Your task to perform on an android device: turn on data saver in the chrome app Image 0: 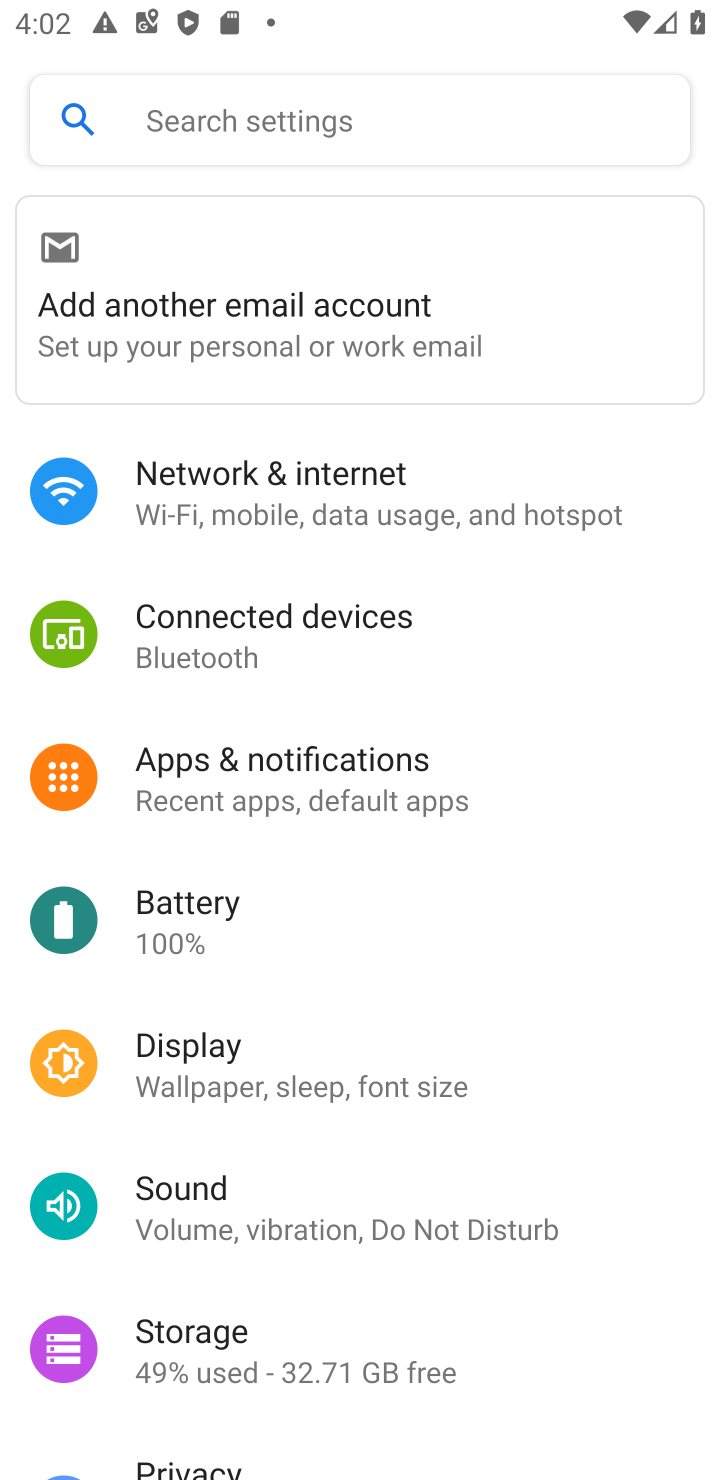
Step 0: press home button
Your task to perform on an android device: turn on data saver in the chrome app Image 1: 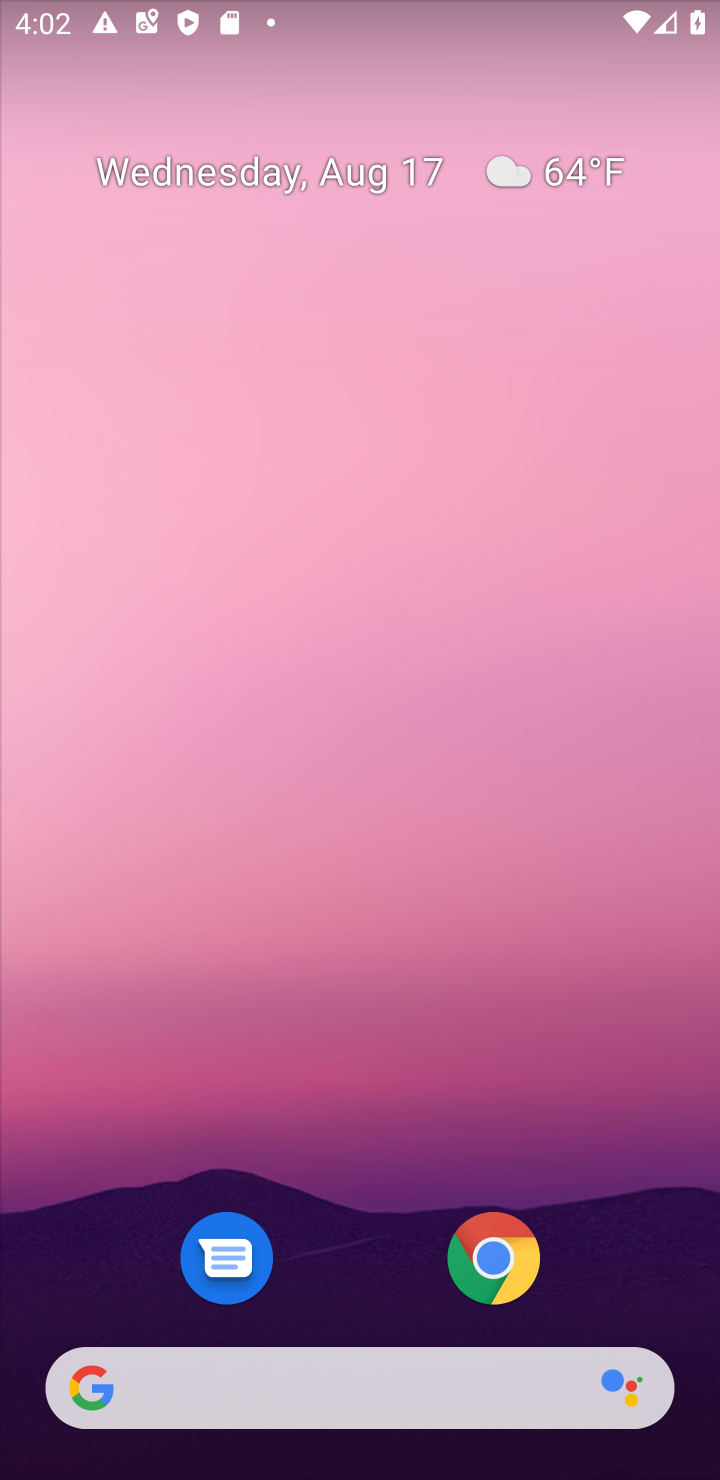
Step 1: click (503, 1253)
Your task to perform on an android device: turn on data saver in the chrome app Image 2: 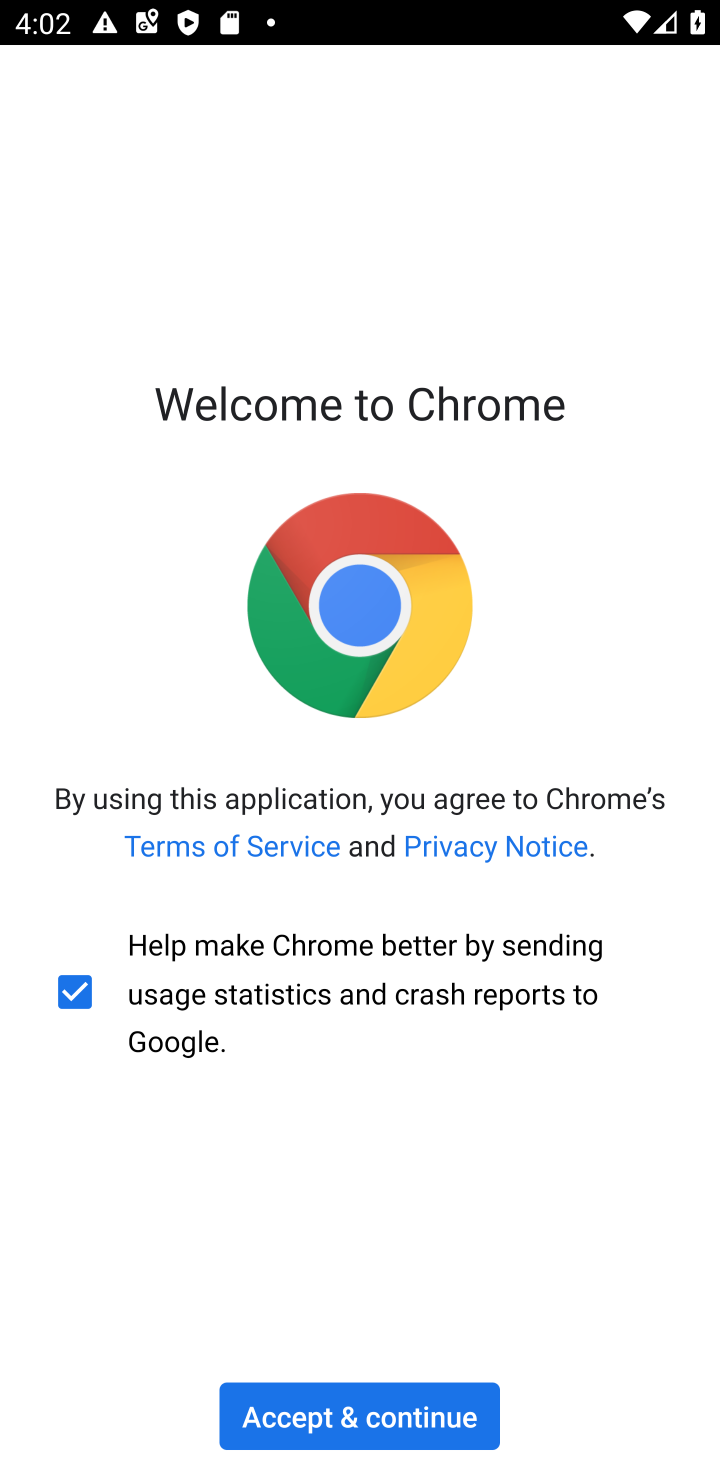
Step 2: click (397, 1411)
Your task to perform on an android device: turn on data saver in the chrome app Image 3: 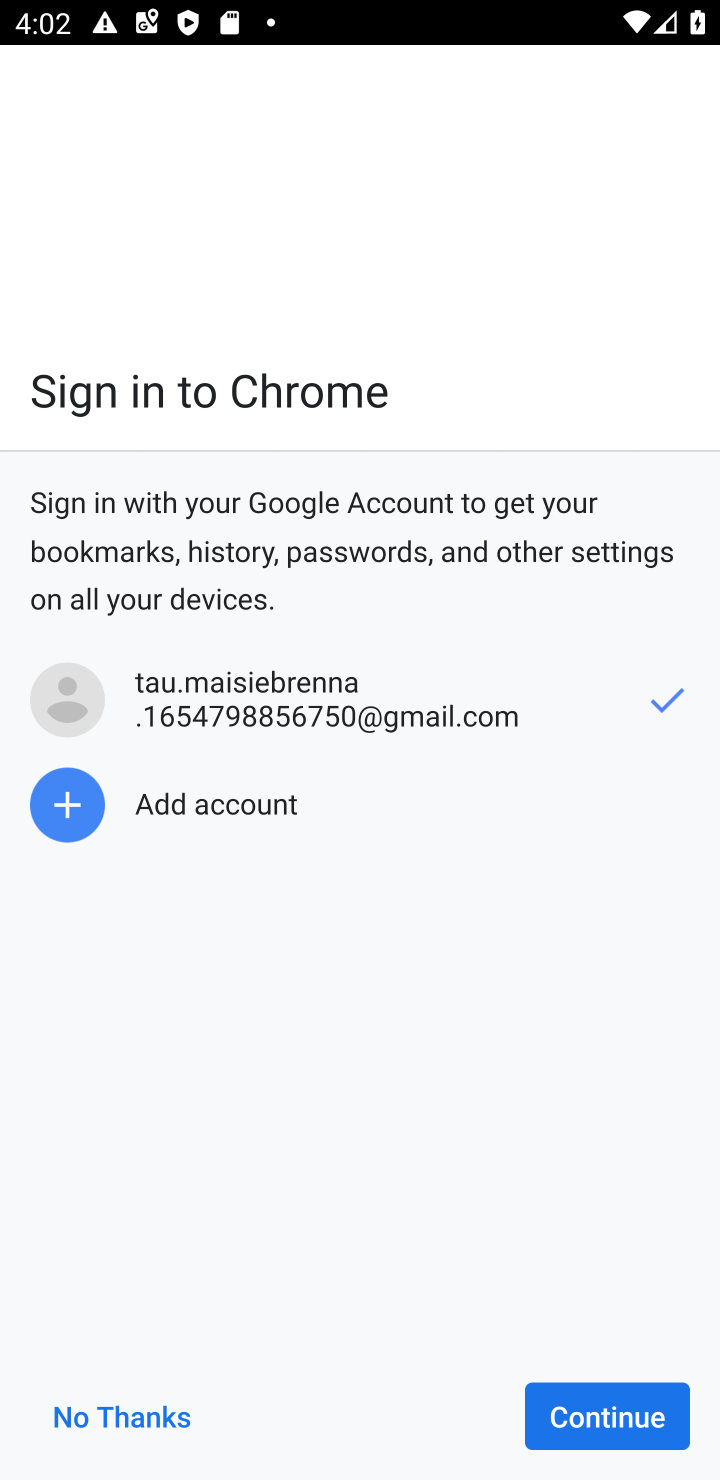
Step 3: click (618, 1428)
Your task to perform on an android device: turn on data saver in the chrome app Image 4: 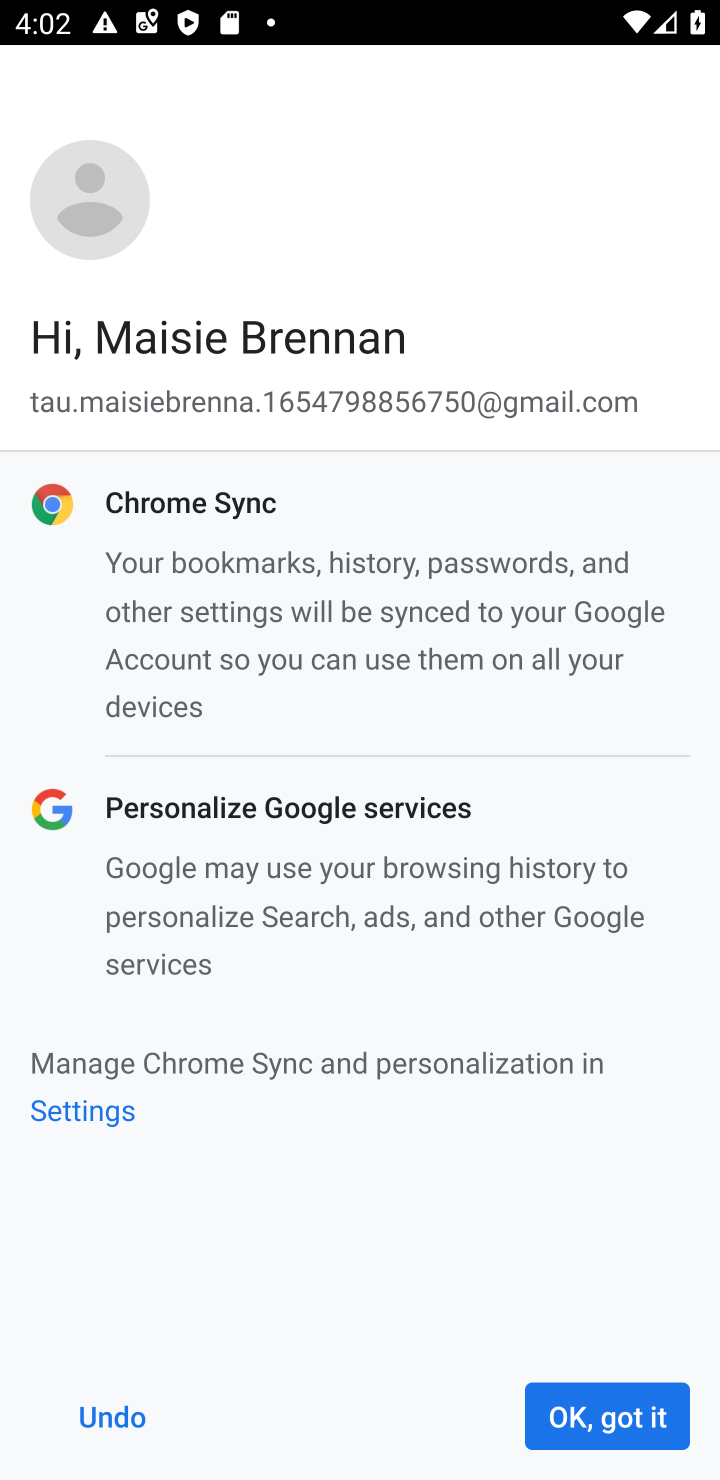
Step 4: click (618, 1428)
Your task to perform on an android device: turn on data saver in the chrome app Image 5: 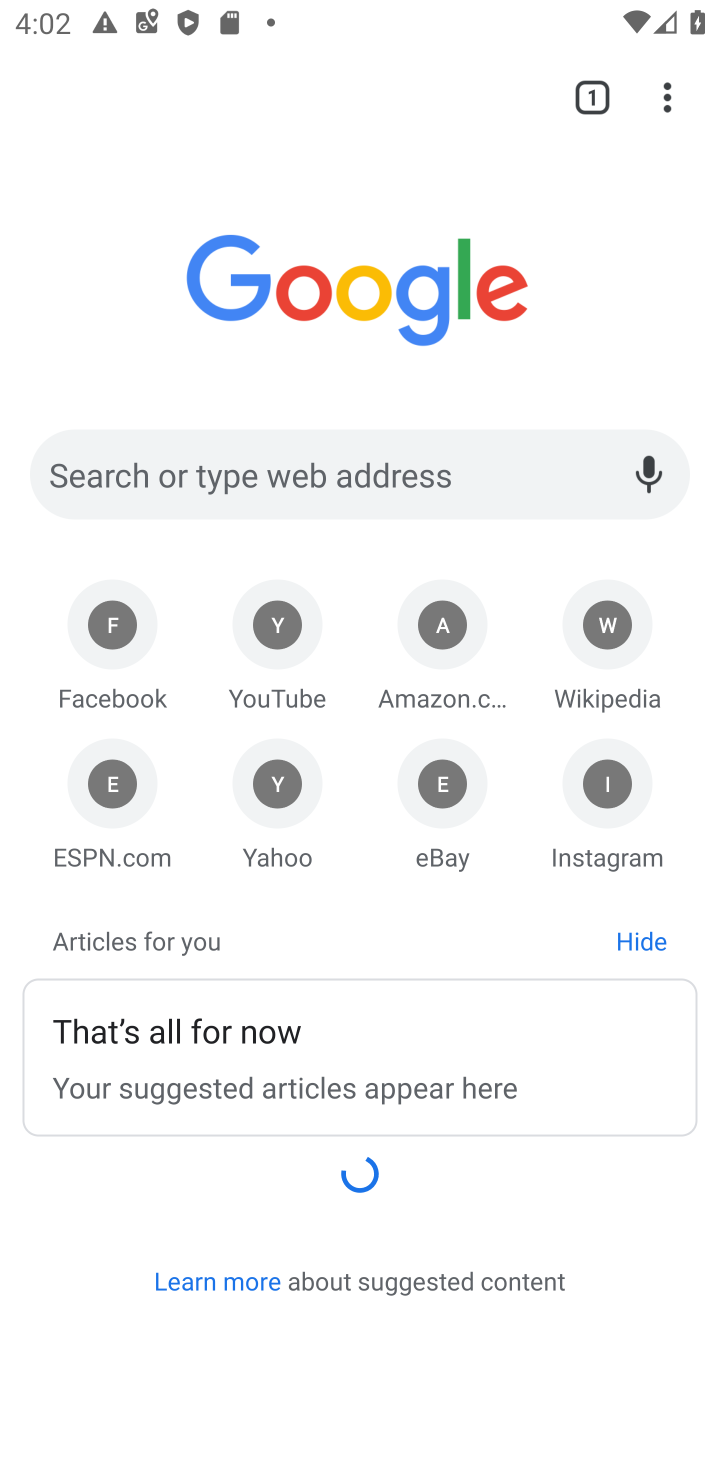
Step 5: click (676, 80)
Your task to perform on an android device: turn on data saver in the chrome app Image 6: 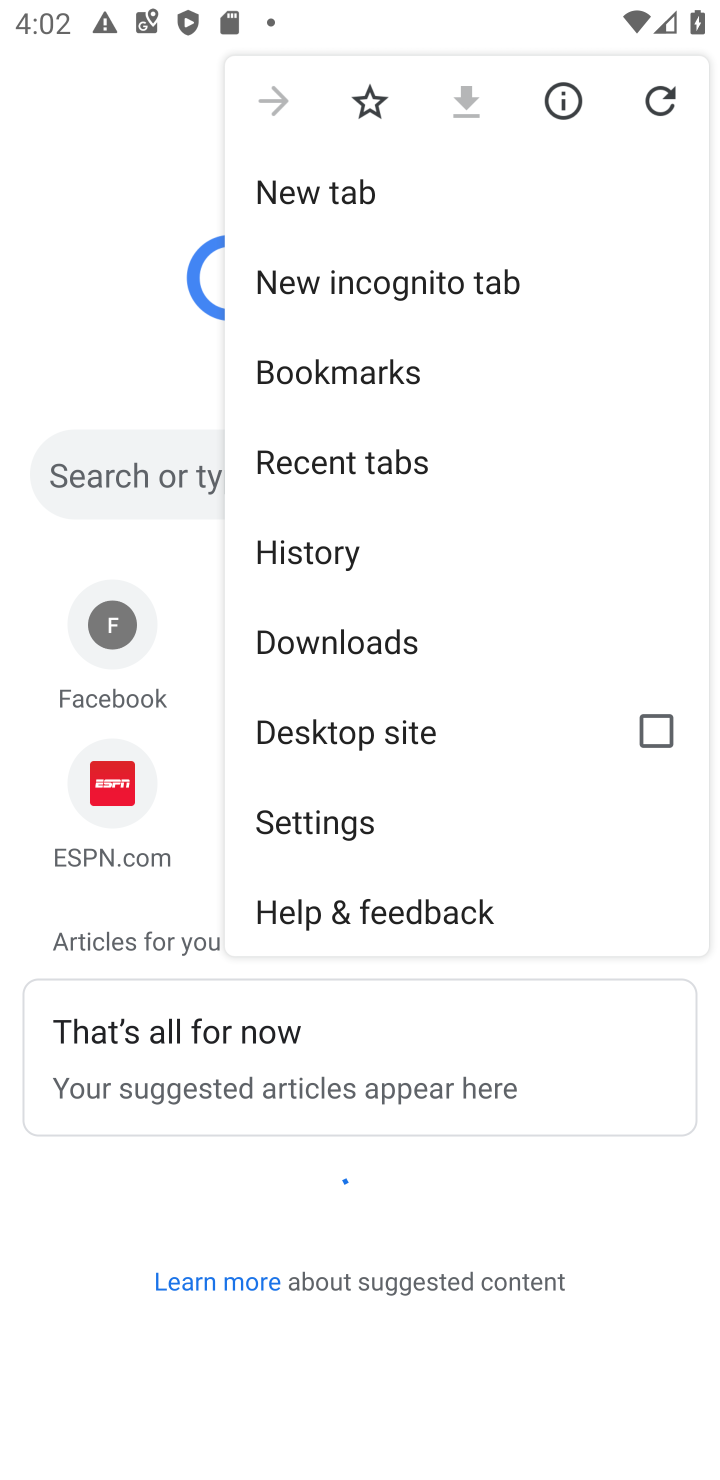
Step 6: click (311, 817)
Your task to perform on an android device: turn on data saver in the chrome app Image 7: 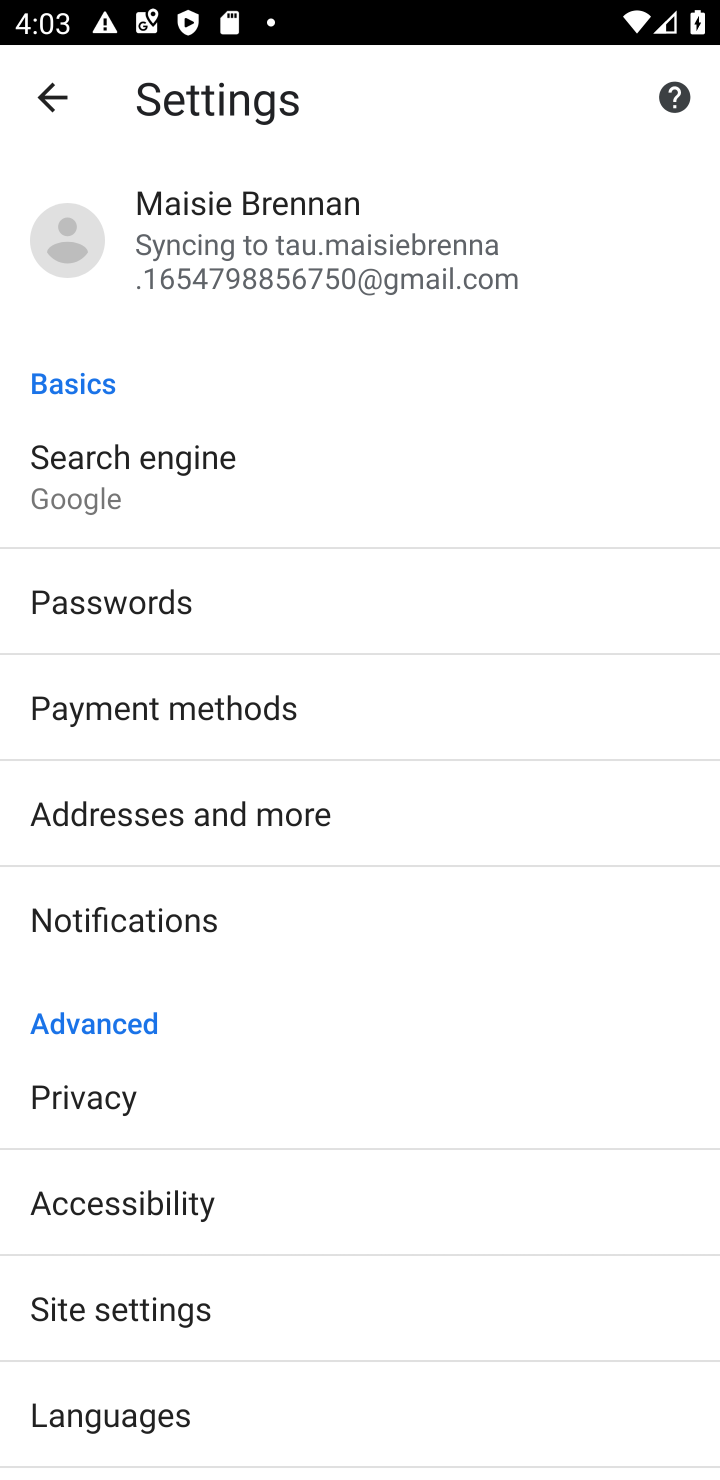
Step 7: drag from (336, 1359) to (364, 725)
Your task to perform on an android device: turn on data saver in the chrome app Image 8: 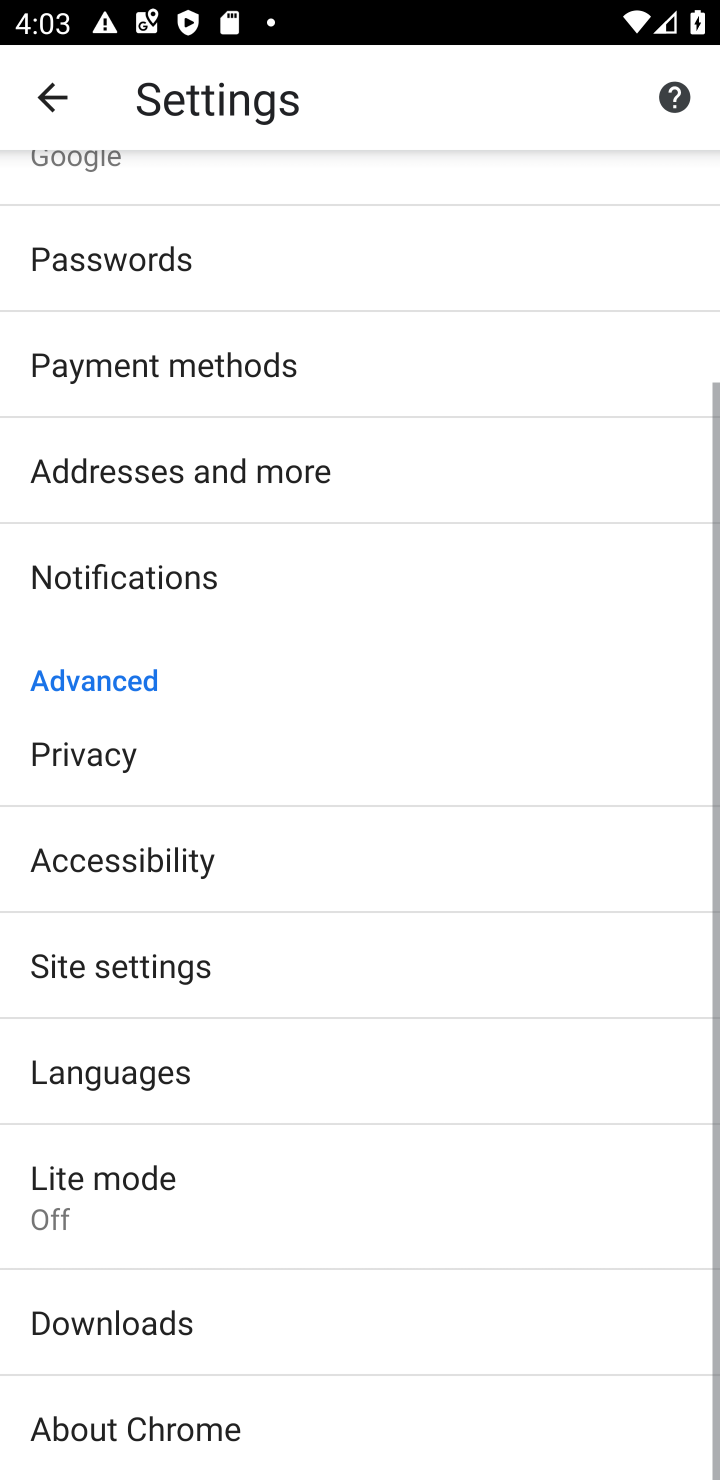
Step 8: click (207, 1206)
Your task to perform on an android device: turn on data saver in the chrome app Image 9: 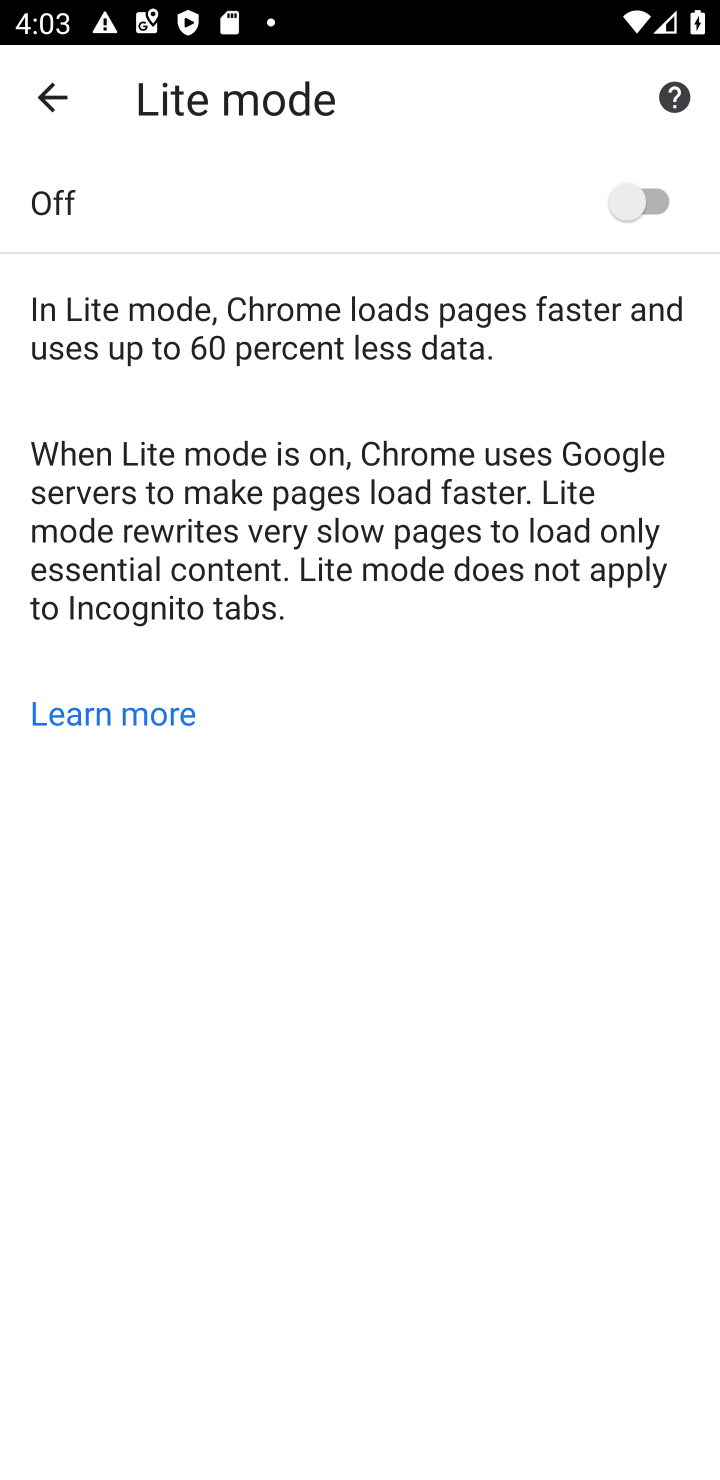
Step 9: click (633, 179)
Your task to perform on an android device: turn on data saver in the chrome app Image 10: 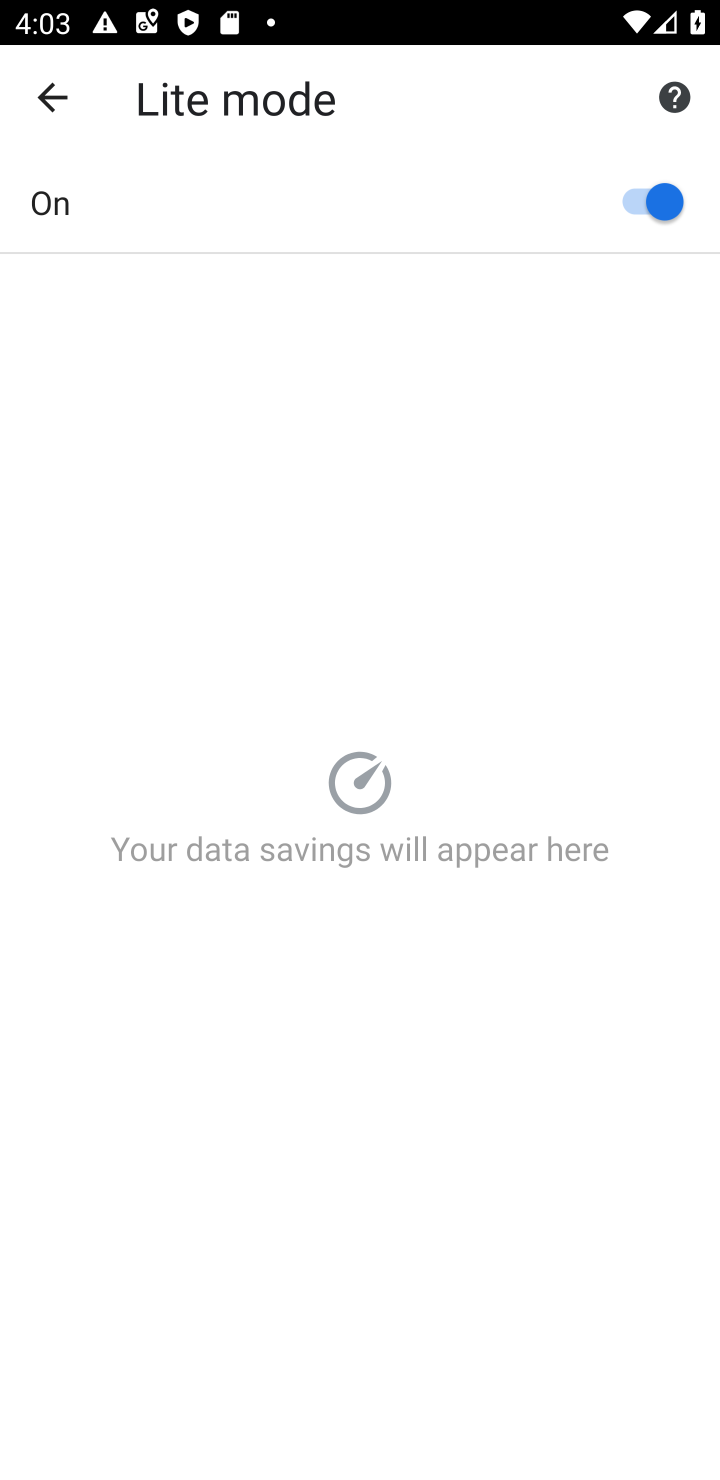
Step 10: task complete